Your task to perform on an android device: delete browsing data in the chrome app Image 0: 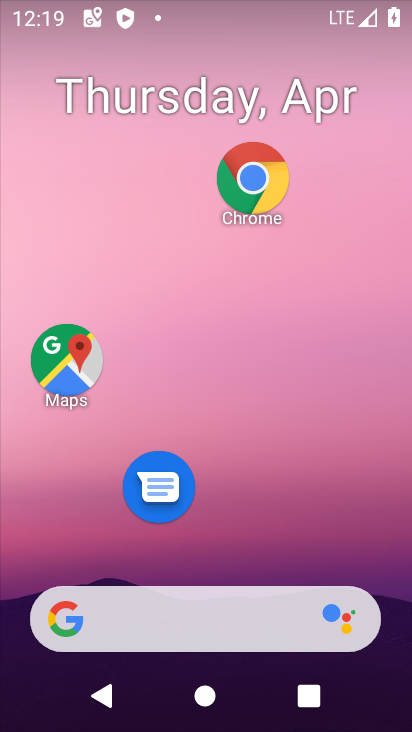
Step 0: click (251, 180)
Your task to perform on an android device: delete browsing data in the chrome app Image 1: 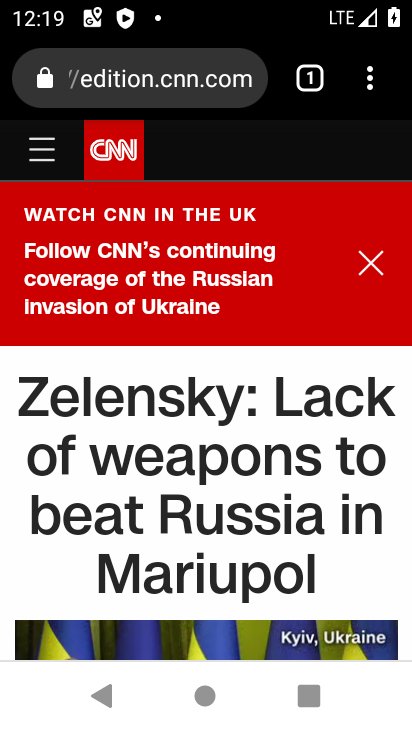
Step 1: drag from (370, 87) to (193, 435)
Your task to perform on an android device: delete browsing data in the chrome app Image 2: 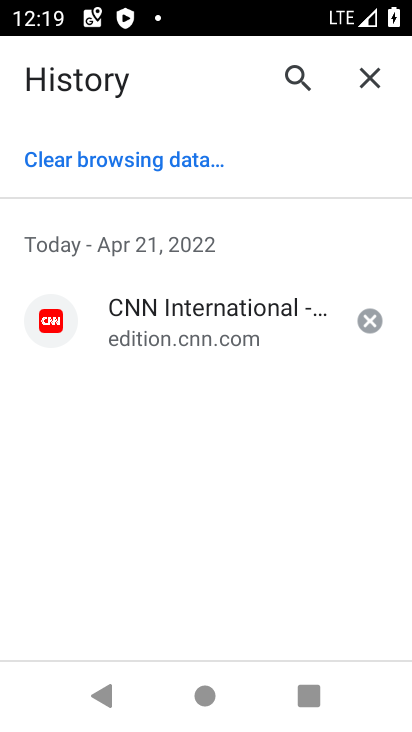
Step 2: click (134, 157)
Your task to perform on an android device: delete browsing data in the chrome app Image 3: 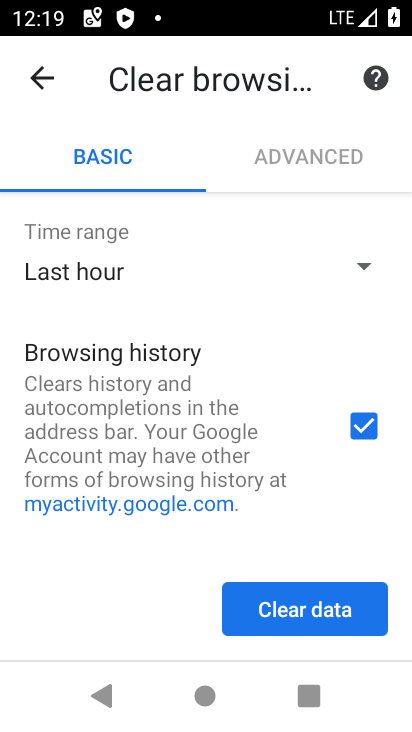
Step 3: drag from (273, 518) to (287, 194)
Your task to perform on an android device: delete browsing data in the chrome app Image 4: 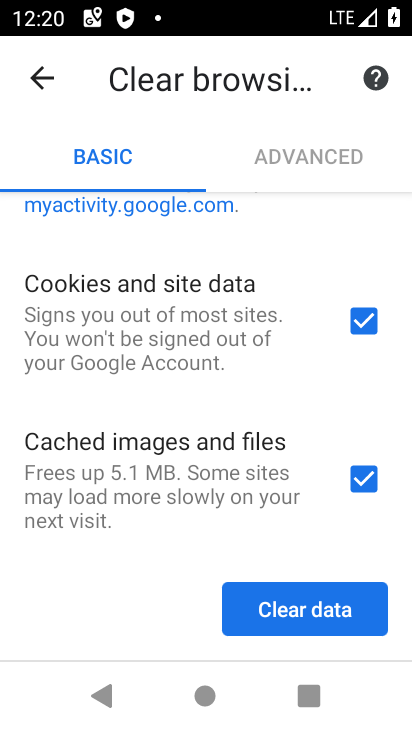
Step 4: click (363, 483)
Your task to perform on an android device: delete browsing data in the chrome app Image 5: 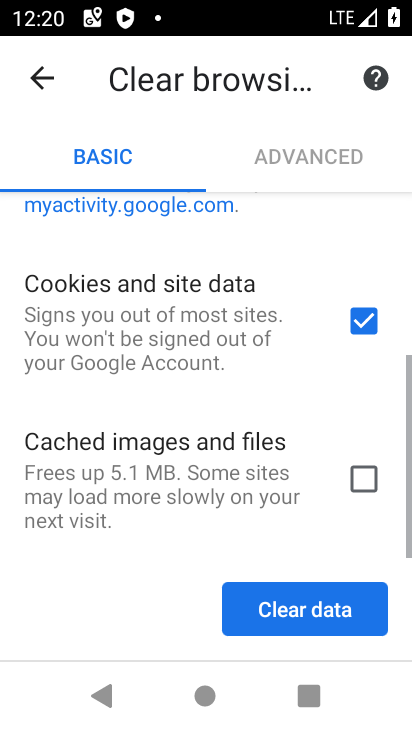
Step 5: click (362, 318)
Your task to perform on an android device: delete browsing data in the chrome app Image 6: 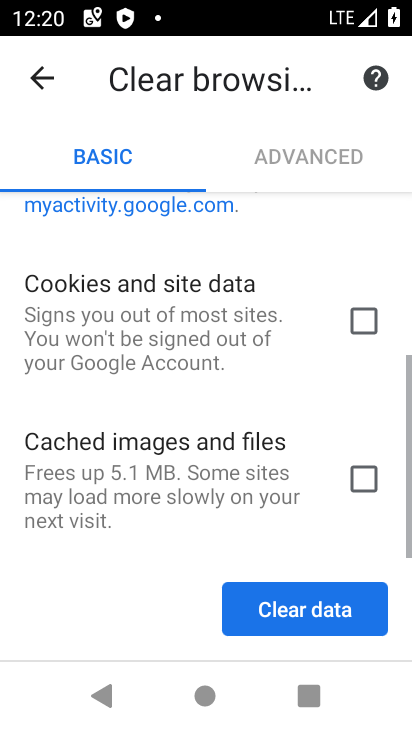
Step 6: drag from (283, 243) to (280, 441)
Your task to perform on an android device: delete browsing data in the chrome app Image 7: 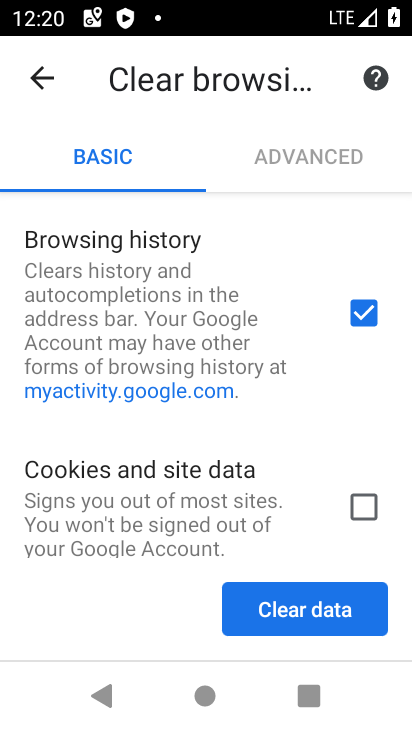
Step 7: click (295, 601)
Your task to perform on an android device: delete browsing data in the chrome app Image 8: 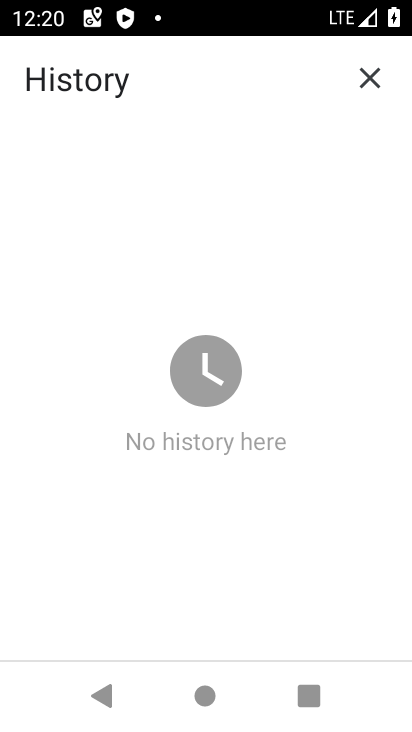
Step 8: task complete